Your task to perform on an android device: Open Google Chrome and open the bookmarks view Image 0: 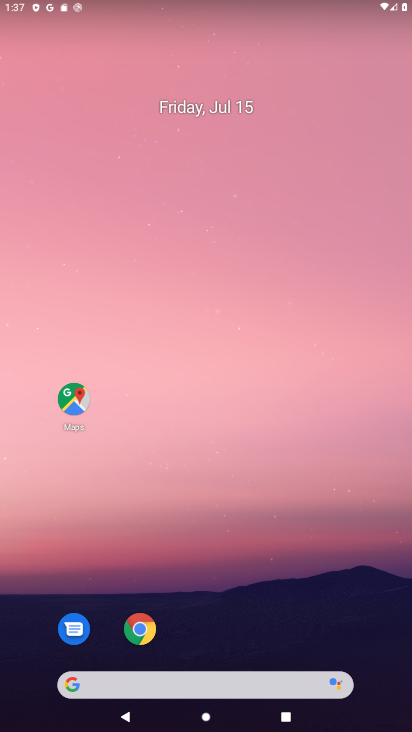
Step 0: click (150, 622)
Your task to perform on an android device: Open Google Chrome and open the bookmarks view Image 1: 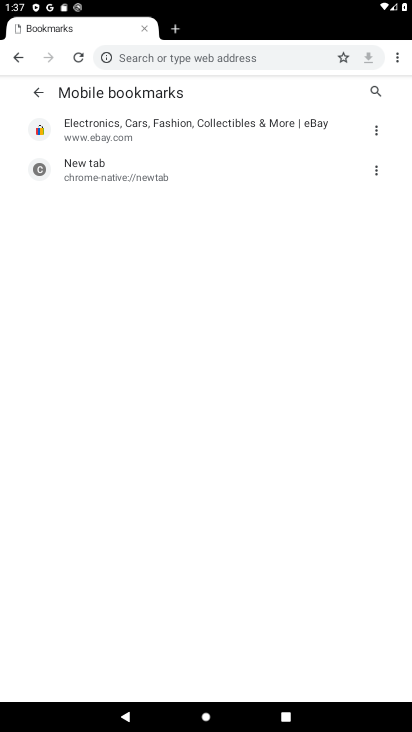
Step 1: click (395, 62)
Your task to perform on an android device: Open Google Chrome and open the bookmarks view Image 2: 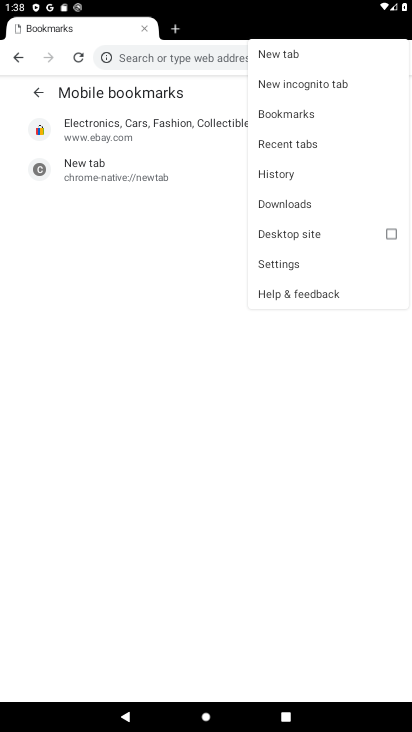
Step 2: click (283, 116)
Your task to perform on an android device: Open Google Chrome and open the bookmarks view Image 3: 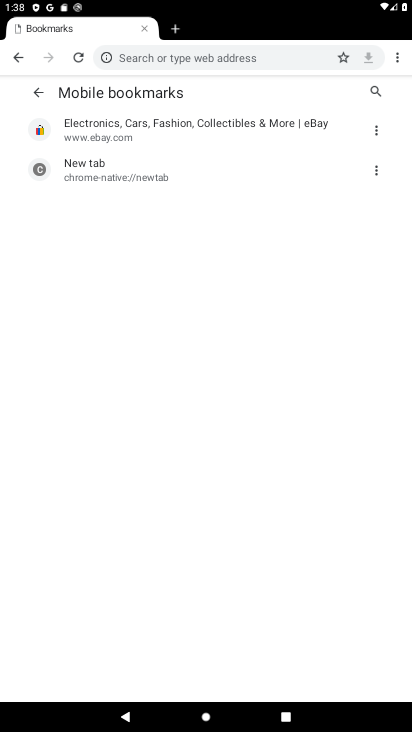
Step 3: task complete